Your task to perform on an android device: Open Youtube and go to "Your channel" Image 0: 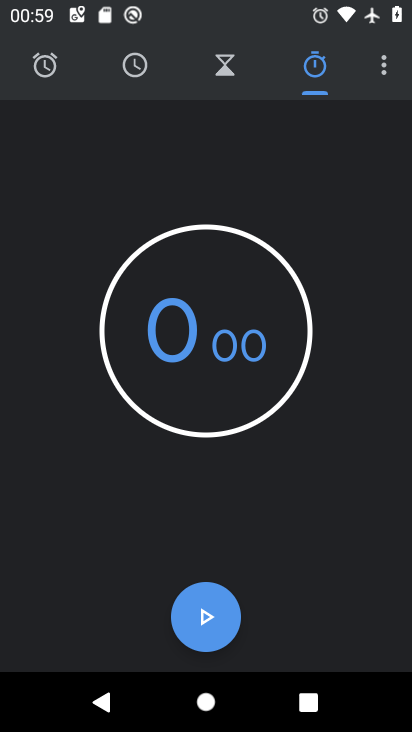
Step 0: press home button
Your task to perform on an android device: Open Youtube and go to "Your channel" Image 1: 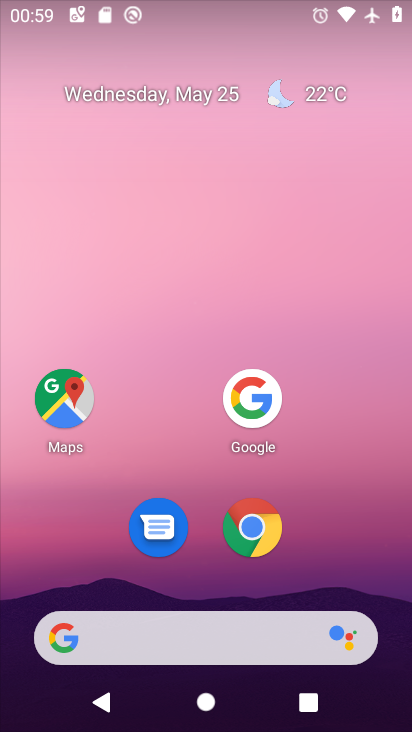
Step 1: drag from (261, 542) to (340, 108)
Your task to perform on an android device: Open Youtube and go to "Your channel" Image 2: 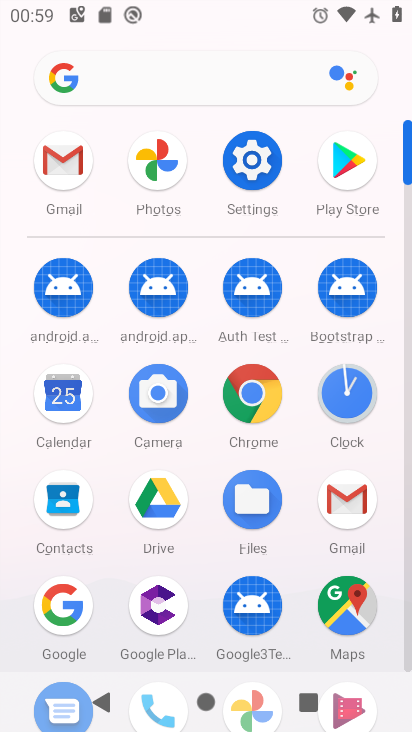
Step 2: drag from (202, 638) to (362, 164)
Your task to perform on an android device: Open Youtube and go to "Your channel" Image 3: 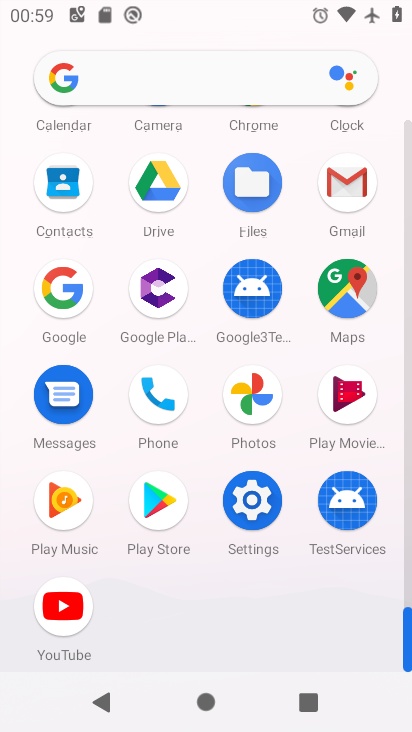
Step 3: click (73, 596)
Your task to perform on an android device: Open Youtube and go to "Your channel" Image 4: 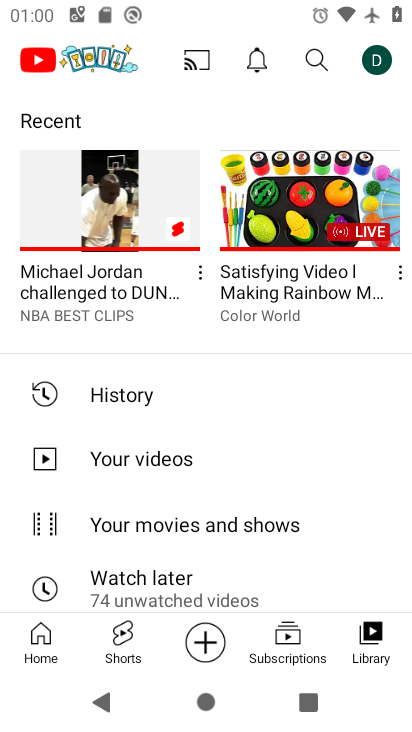
Step 4: click (376, 63)
Your task to perform on an android device: Open Youtube and go to "Your channel" Image 5: 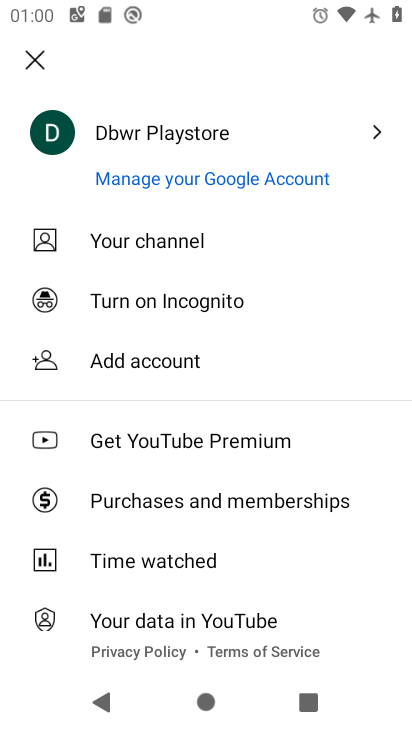
Step 5: click (157, 243)
Your task to perform on an android device: Open Youtube and go to "Your channel" Image 6: 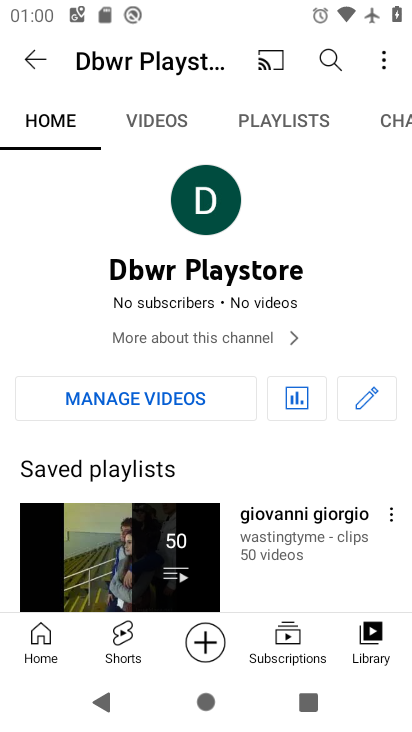
Step 6: task complete